Your task to perform on an android device: What's the weather going to be tomorrow? Image 0: 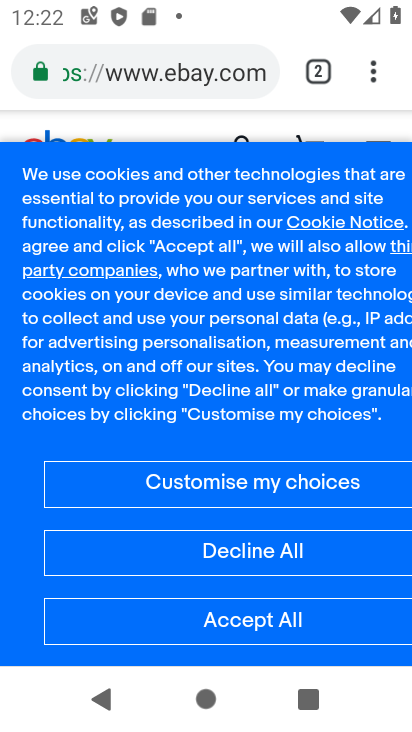
Step 0: press home button
Your task to perform on an android device: What's the weather going to be tomorrow? Image 1: 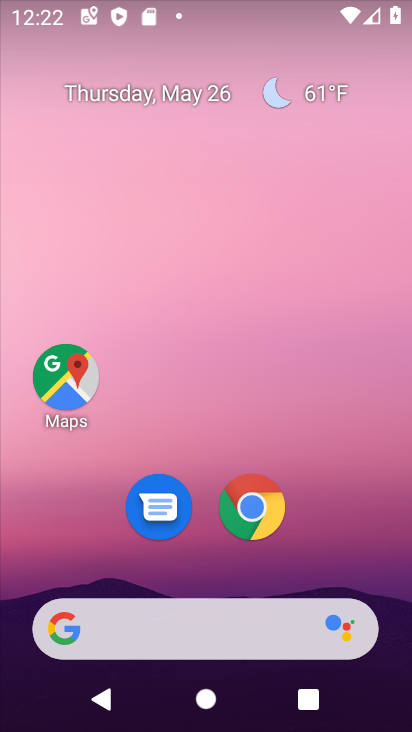
Step 1: click (153, 641)
Your task to perform on an android device: What's the weather going to be tomorrow? Image 2: 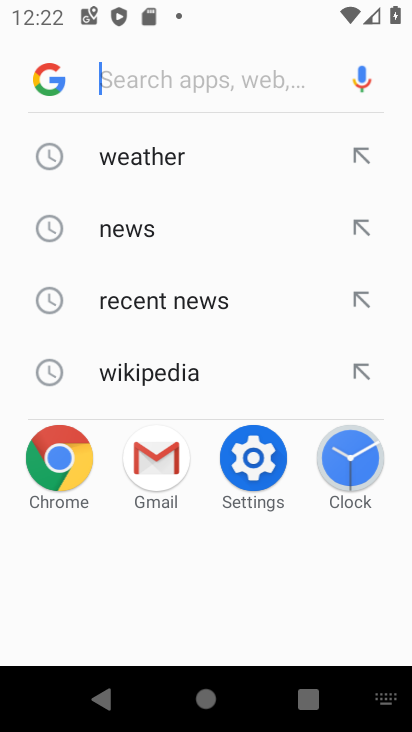
Step 2: click (184, 176)
Your task to perform on an android device: What's the weather going to be tomorrow? Image 3: 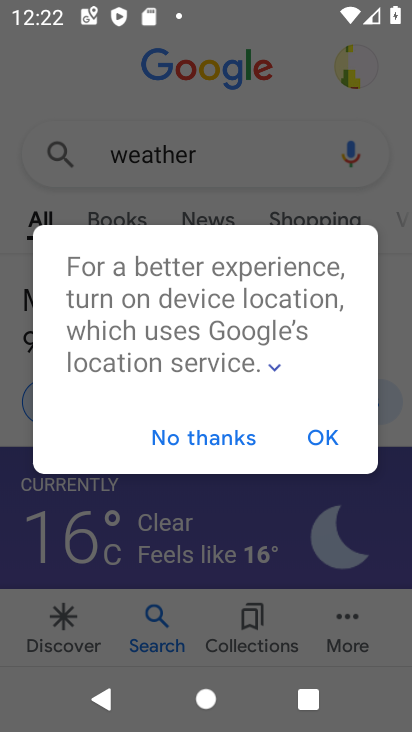
Step 3: click (299, 442)
Your task to perform on an android device: What's the weather going to be tomorrow? Image 4: 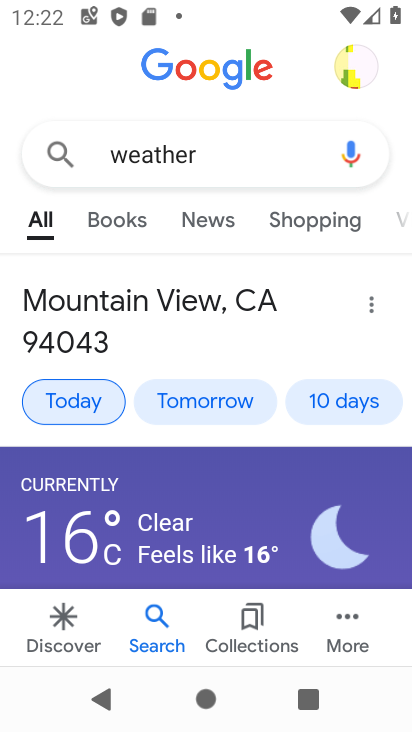
Step 4: click (224, 402)
Your task to perform on an android device: What's the weather going to be tomorrow? Image 5: 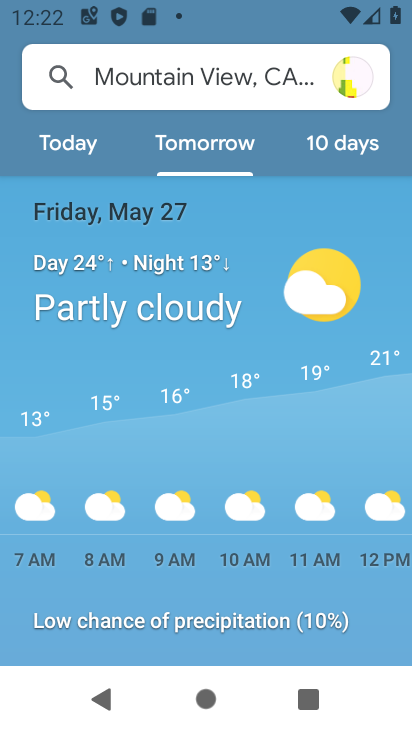
Step 5: task complete